Your task to perform on an android device: turn on wifi Image 0: 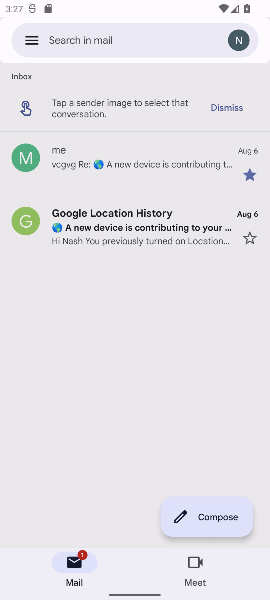
Step 0: press home button
Your task to perform on an android device: turn on wifi Image 1: 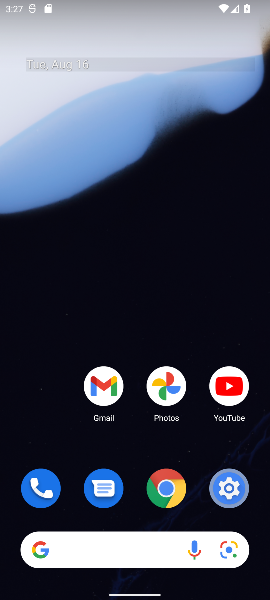
Step 1: task complete